Your task to perform on an android device: Open eBay Image 0: 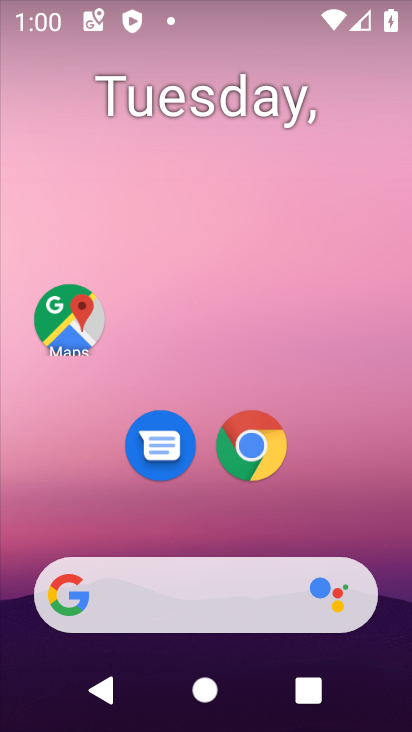
Step 0: drag from (349, 526) to (405, 58)
Your task to perform on an android device: Open eBay Image 1: 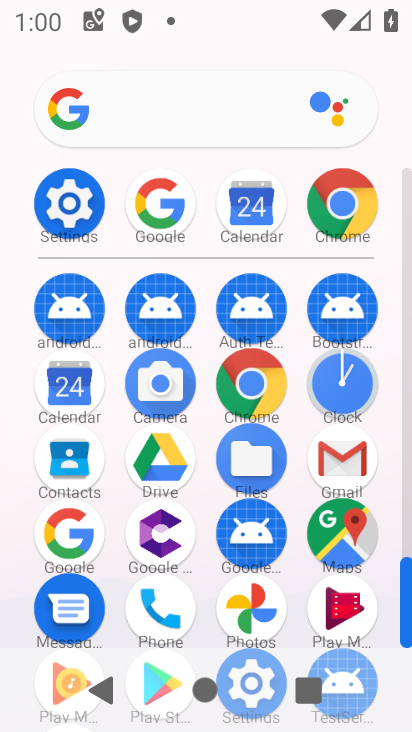
Step 1: click (332, 212)
Your task to perform on an android device: Open eBay Image 2: 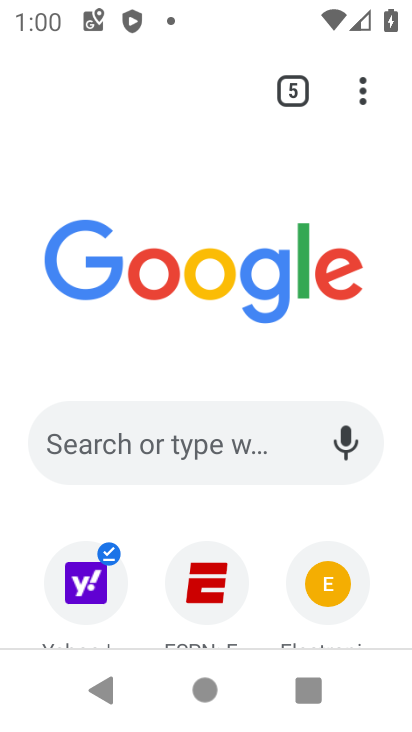
Step 2: drag from (263, 521) to (309, 159)
Your task to perform on an android device: Open eBay Image 3: 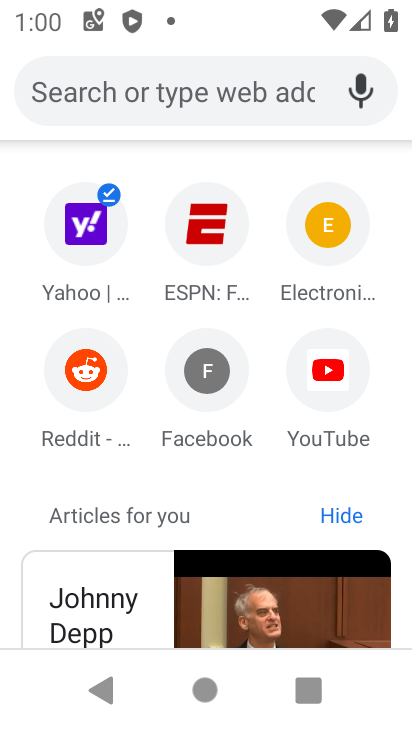
Step 3: click (195, 92)
Your task to perform on an android device: Open eBay Image 4: 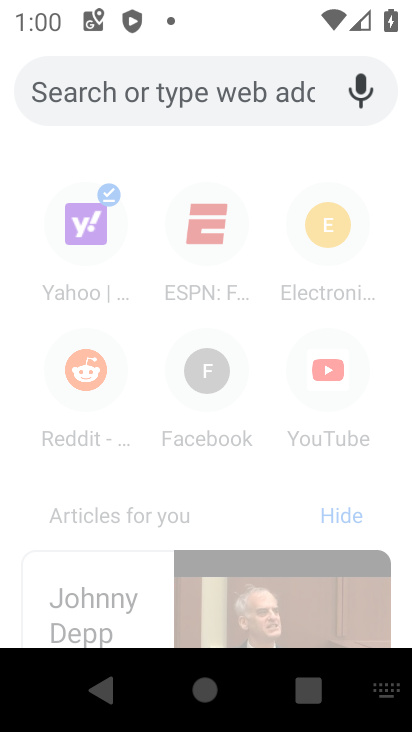
Step 4: type "ebay"
Your task to perform on an android device: Open eBay Image 5: 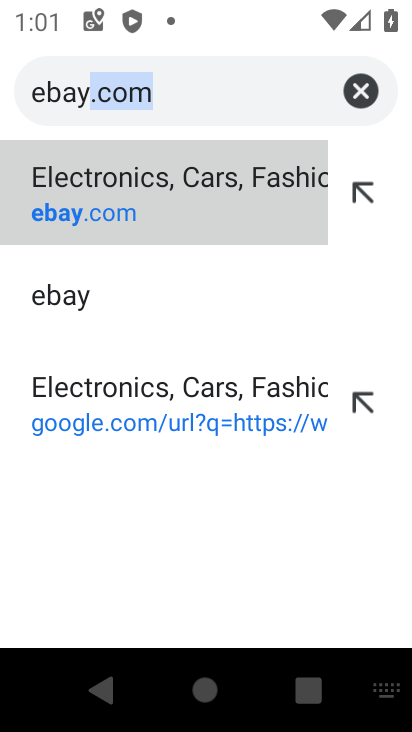
Step 5: click (81, 204)
Your task to perform on an android device: Open eBay Image 6: 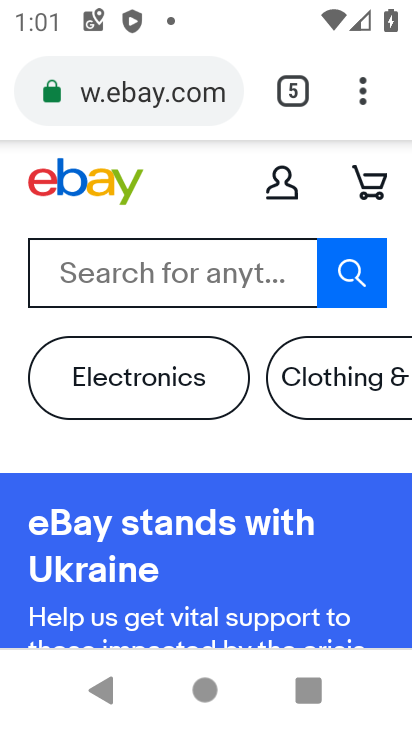
Step 6: task complete